Your task to perform on an android device: Open calendar and show me the third week of next month Image 0: 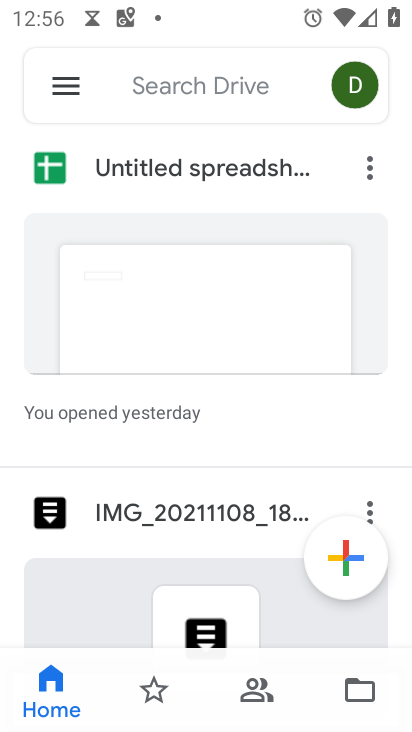
Step 0: press home button
Your task to perform on an android device: Open calendar and show me the third week of next month Image 1: 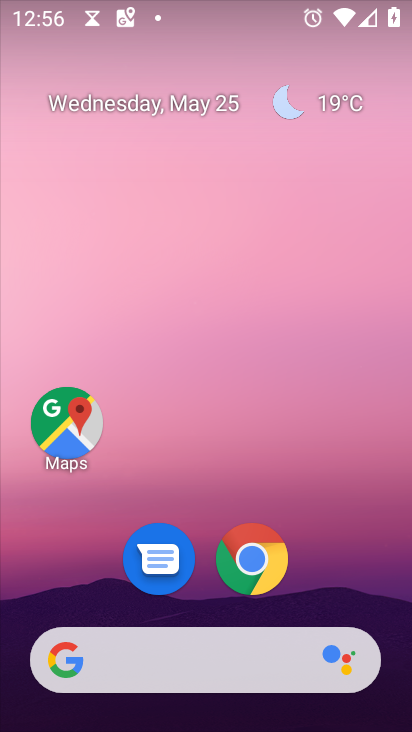
Step 1: drag from (401, 477) to (320, 39)
Your task to perform on an android device: Open calendar and show me the third week of next month Image 2: 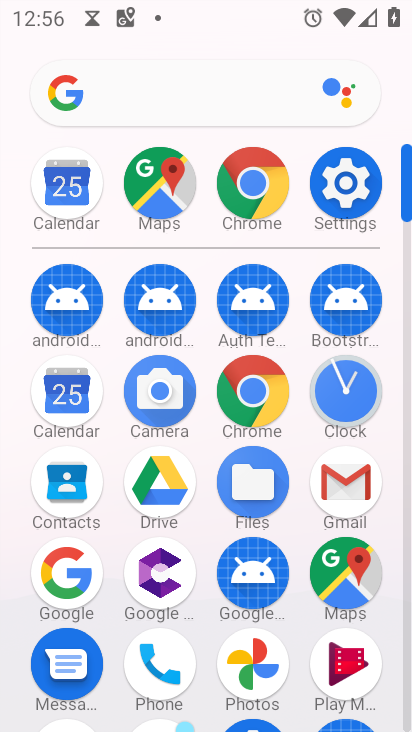
Step 2: click (58, 412)
Your task to perform on an android device: Open calendar and show me the third week of next month Image 3: 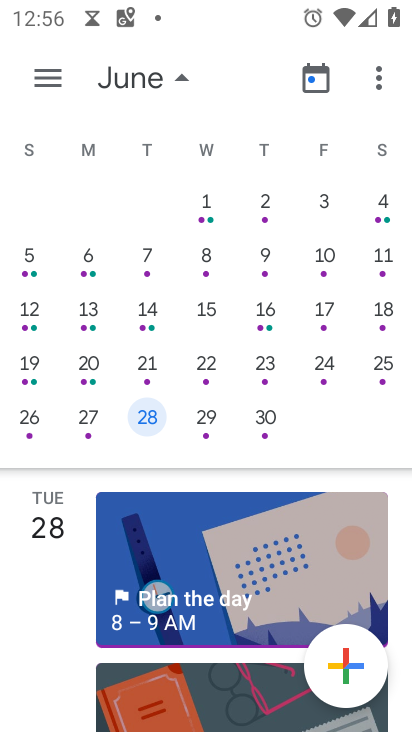
Step 3: drag from (379, 354) to (28, 408)
Your task to perform on an android device: Open calendar and show me the third week of next month Image 4: 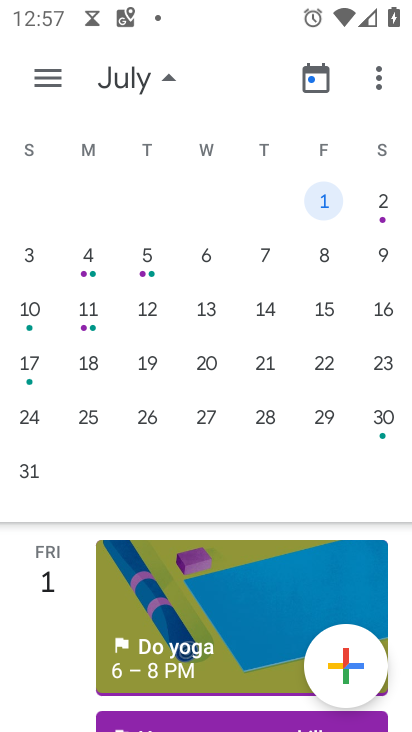
Step 4: click (262, 362)
Your task to perform on an android device: Open calendar and show me the third week of next month Image 5: 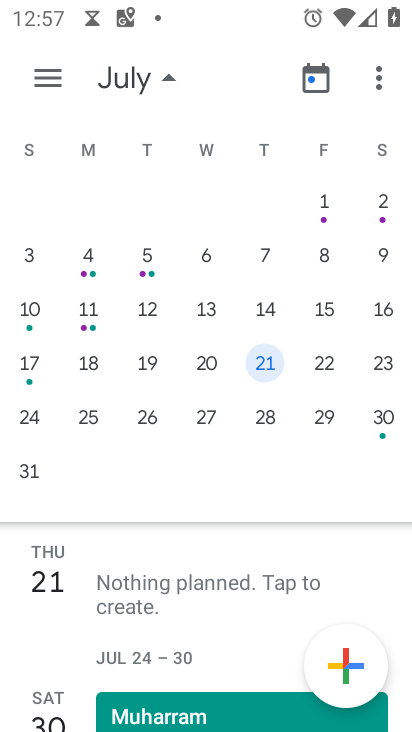
Step 5: task complete